Your task to perform on an android device: turn pop-ups off in chrome Image 0: 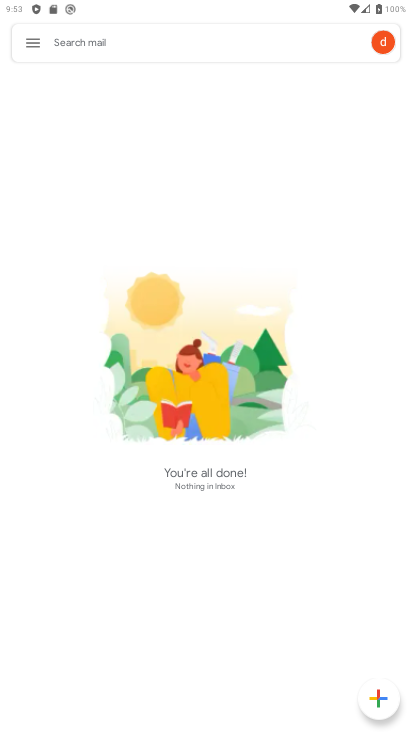
Step 0: press back button
Your task to perform on an android device: turn pop-ups off in chrome Image 1: 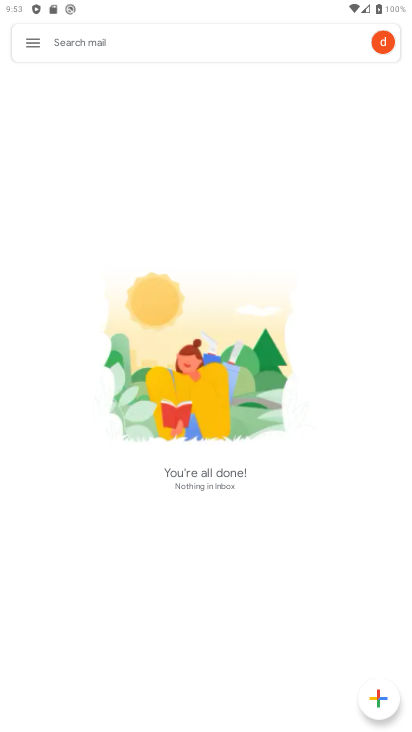
Step 1: press back button
Your task to perform on an android device: turn pop-ups off in chrome Image 2: 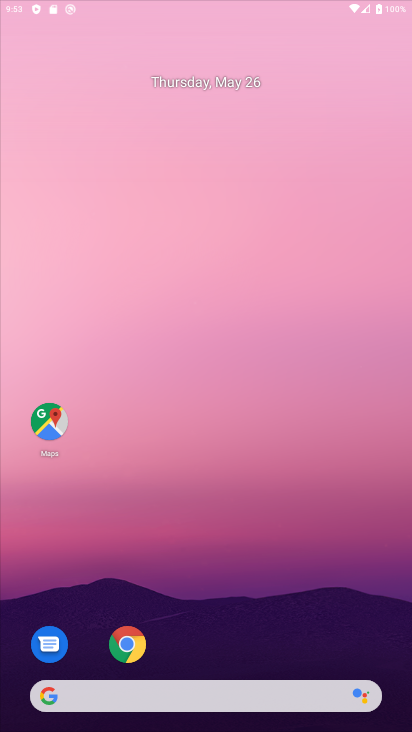
Step 2: press back button
Your task to perform on an android device: turn pop-ups off in chrome Image 3: 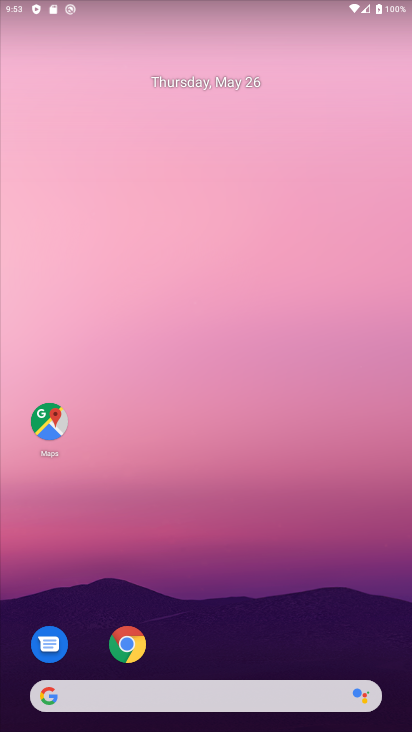
Step 3: press home button
Your task to perform on an android device: turn pop-ups off in chrome Image 4: 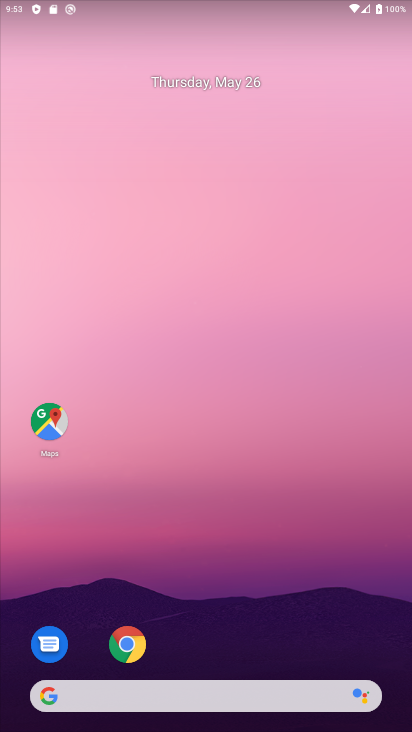
Step 4: click (89, 115)
Your task to perform on an android device: turn pop-ups off in chrome Image 5: 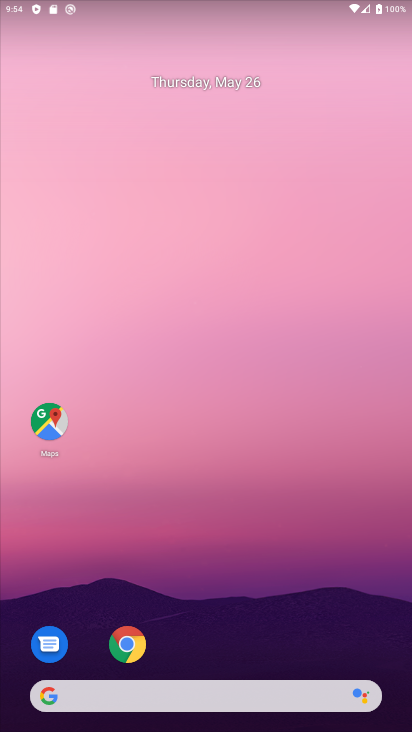
Step 5: drag from (86, 72) to (252, 10)
Your task to perform on an android device: turn pop-ups off in chrome Image 6: 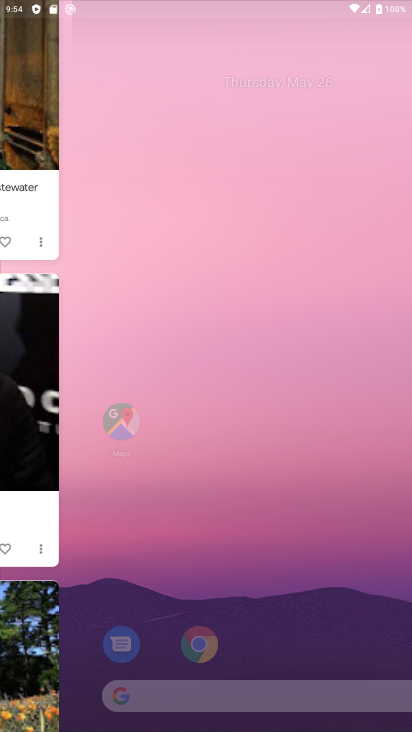
Step 6: drag from (285, 461) to (263, 173)
Your task to perform on an android device: turn pop-ups off in chrome Image 7: 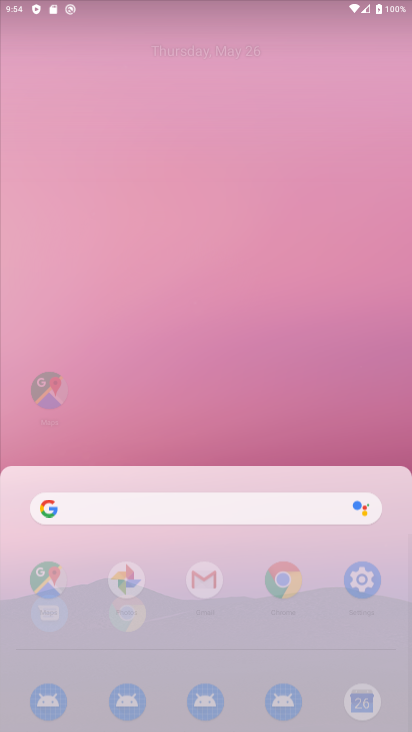
Step 7: drag from (226, 219) to (264, 128)
Your task to perform on an android device: turn pop-ups off in chrome Image 8: 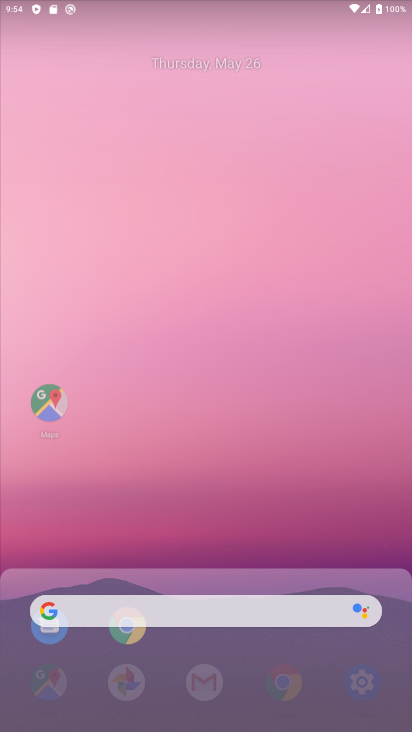
Step 8: drag from (236, 126) to (159, 145)
Your task to perform on an android device: turn pop-ups off in chrome Image 9: 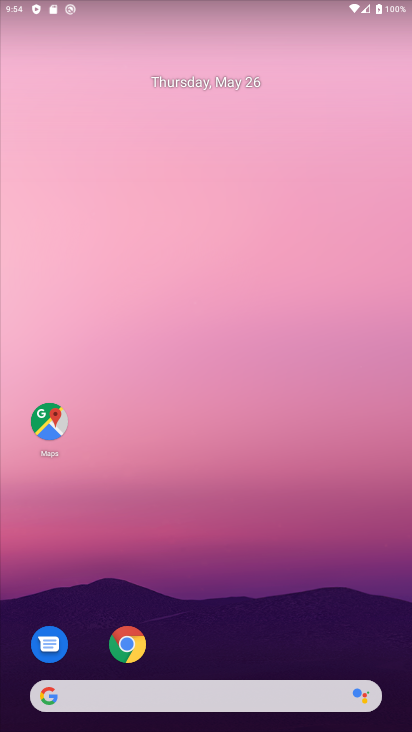
Step 9: drag from (240, 239) to (145, 118)
Your task to perform on an android device: turn pop-ups off in chrome Image 10: 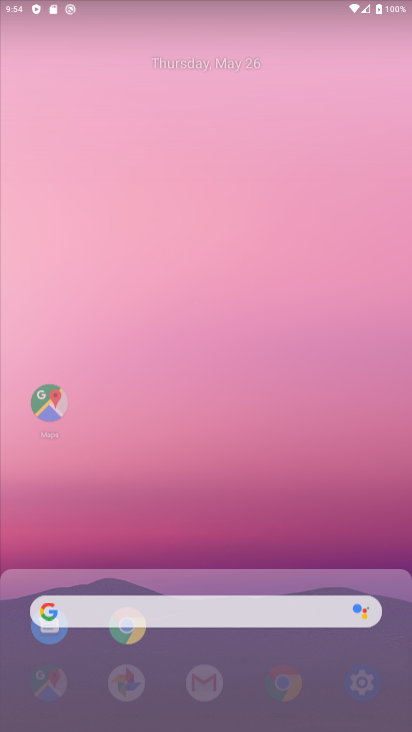
Step 10: drag from (112, 227) to (296, 234)
Your task to perform on an android device: turn pop-ups off in chrome Image 11: 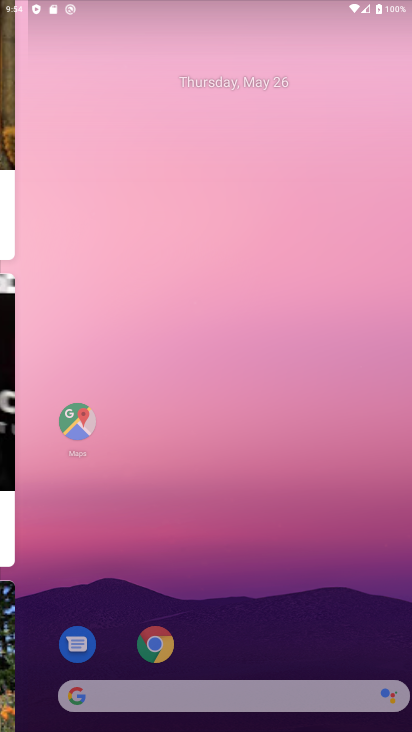
Step 11: drag from (171, 494) to (107, 0)
Your task to perform on an android device: turn pop-ups off in chrome Image 12: 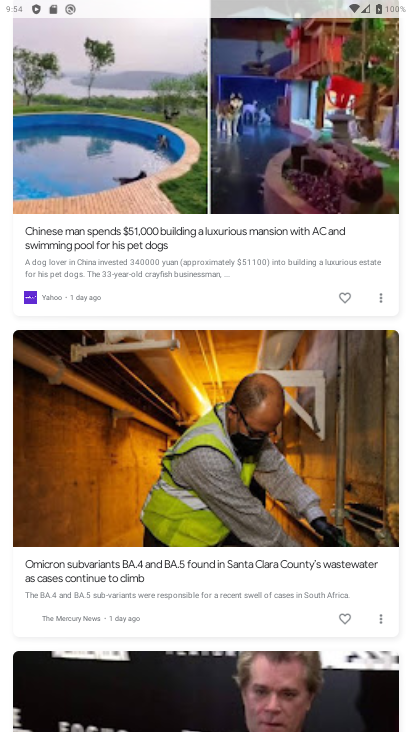
Step 12: drag from (213, 394) to (128, 52)
Your task to perform on an android device: turn pop-ups off in chrome Image 13: 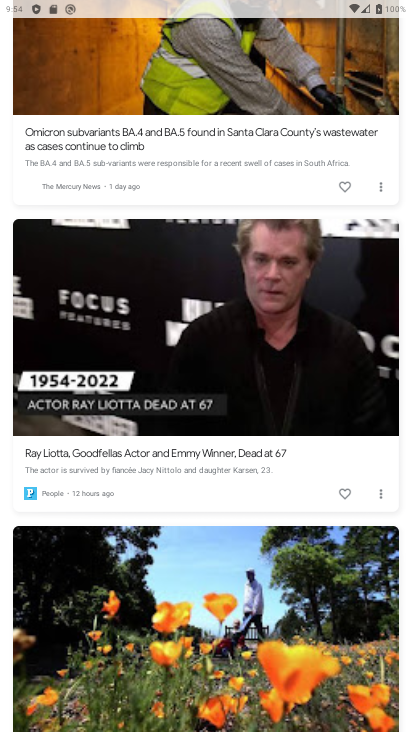
Step 13: click (220, 93)
Your task to perform on an android device: turn pop-ups off in chrome Image 14: 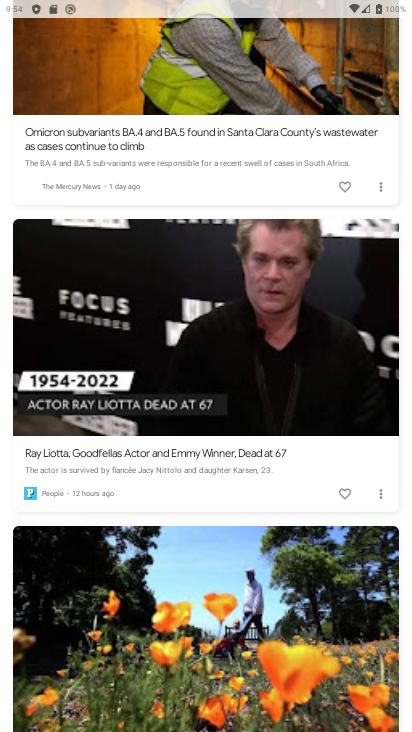
Step 14: press back button
Your task to perform on an android device: turn pop-ups off in chrome Image 15: 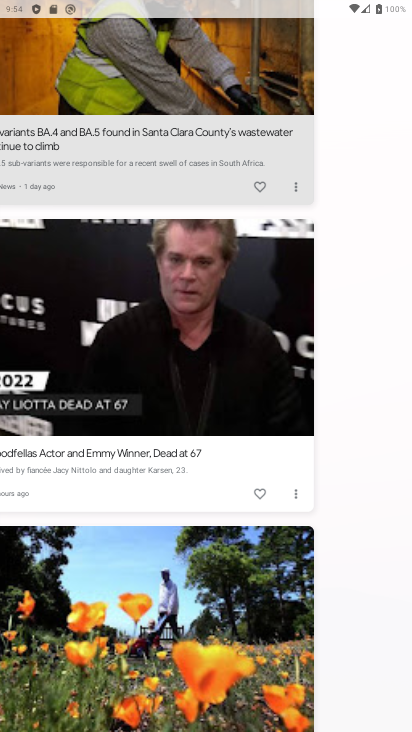
Step 15: press back button
Your task to perform on an android device: turn pop-ups off in chrome Image 16: 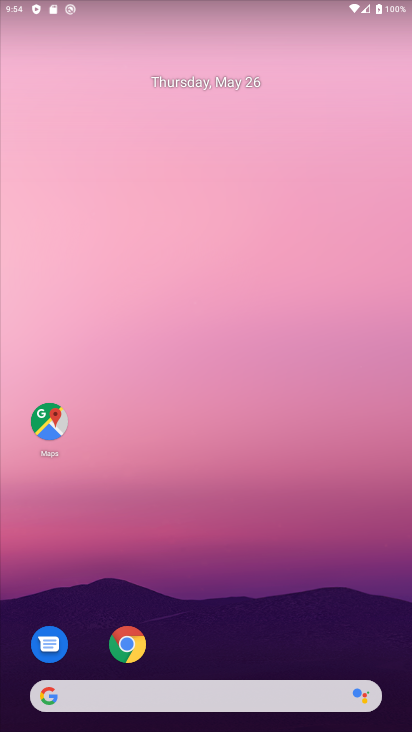
Step 16: drag from (260, 689) to (93, 149)
Your task to perform on an android device: turn pop-ups off in chrome Image 17: 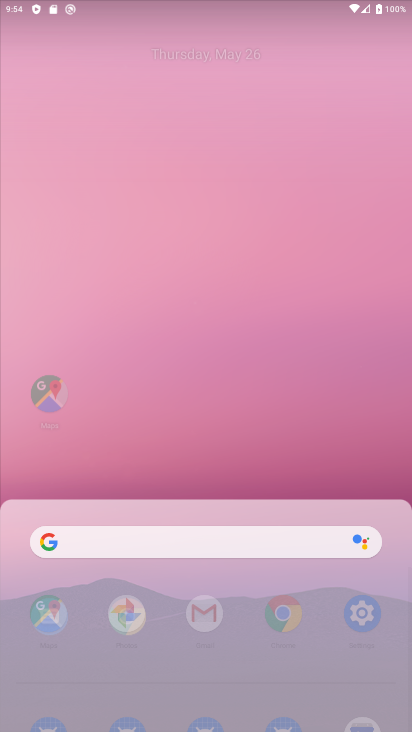
Step 17: drag from (216, 617) to (103, 144)
Your task to perform on an android device: turn pop-ups off in chrome Image 18: 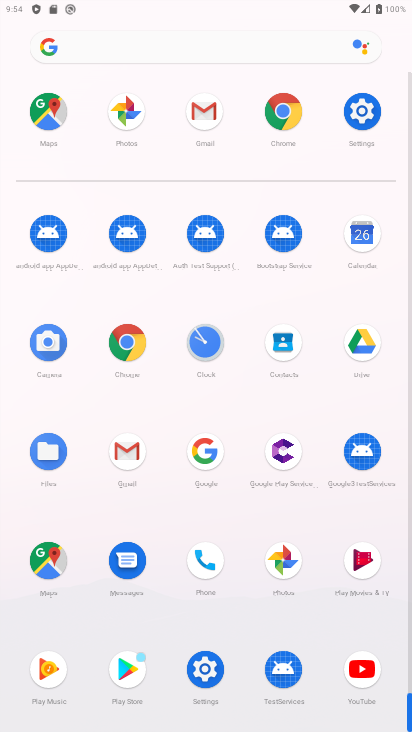
Step 18: click (282, 111)
Your task to perform on an android device: turn pop-ups off in chrome Image 19: 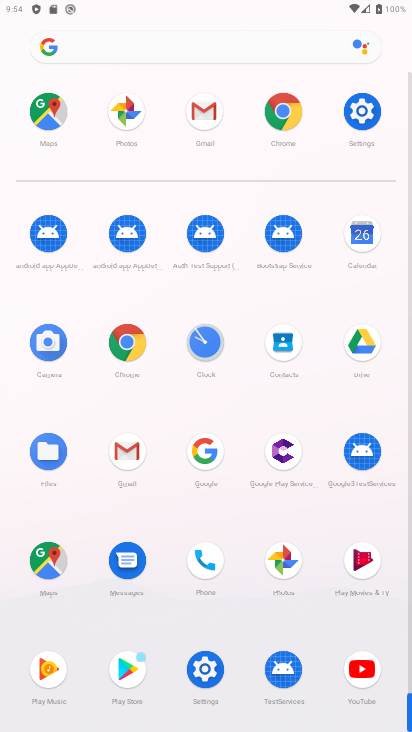
Step 19: click (282, 111)
Your task to perform on an android device: turn pop-ups off in chrome Image 20: 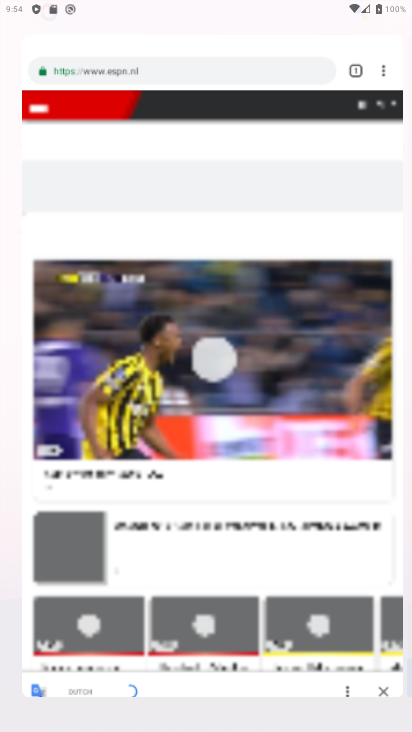
Step 20: click (287, 110)
Your task to perform on an android device: turn pop-ups off in chrome Image 21: 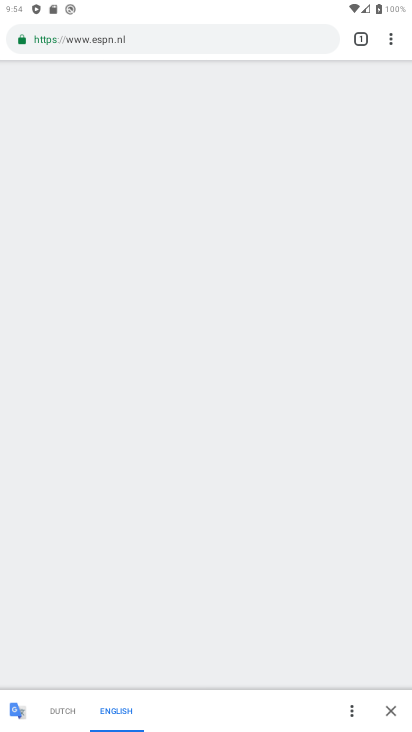
Step 21: drag from (389, 41) to (234, 464)
Your task to perform on an android device: turn pop-ups off in chrome Image 22: 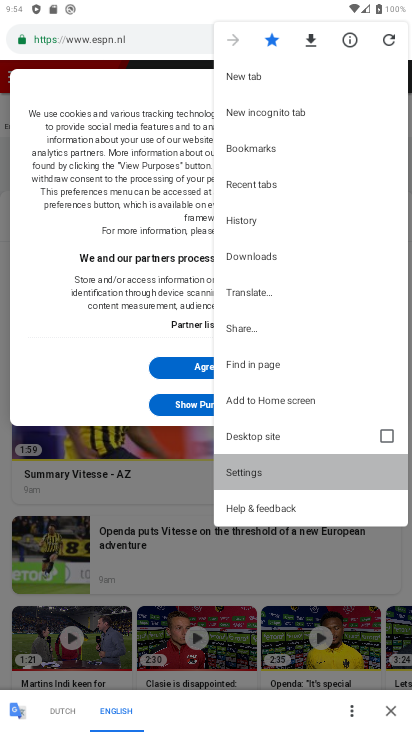
Step 22: click (238, 461)
Your task to perform on an android device: turn pop-ups off in chrome Image 23: 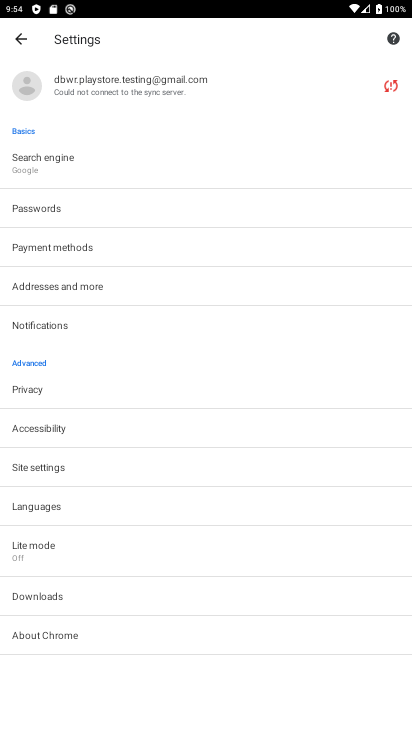
Step 23: click (37, 468)
Your task to perform on an android device: turn pop-ups off in chrome Image 24: 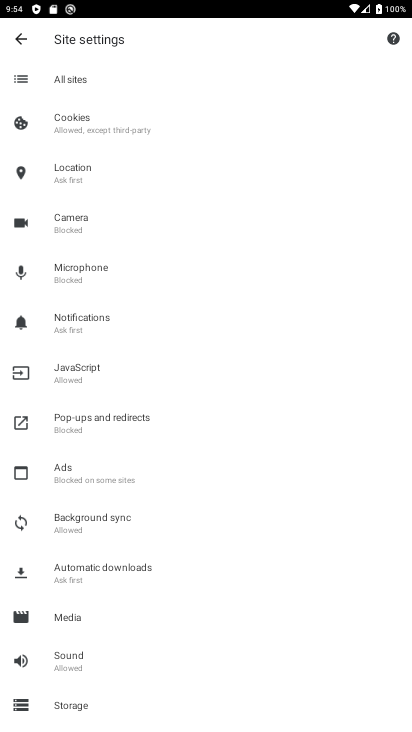
Step 24: click (74, 428)
Your task to perform on an android device: turn pop-ups off in chrome Image 25: 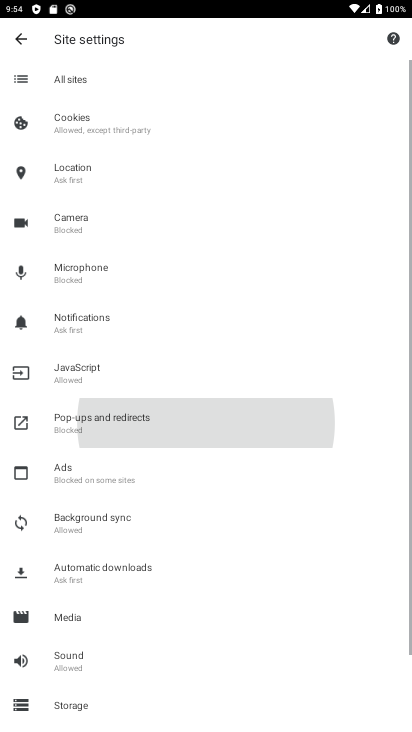
Step 25: click (76, 426)
Your task to perform on an android device: turn pop-ups off in chrome Image 26: 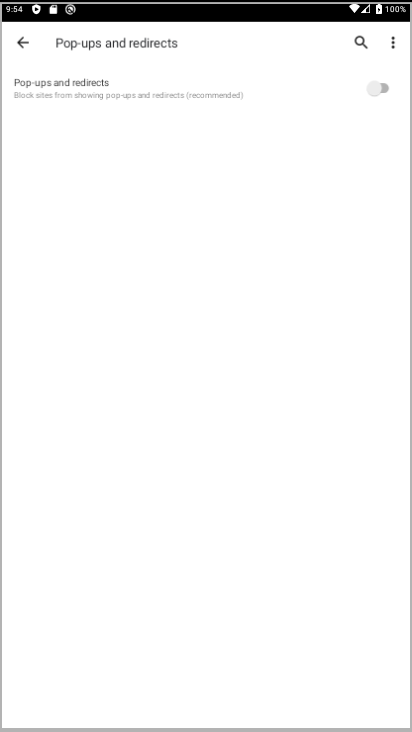
Step 26: click (77, 425)
Your task to perform on an android device: turn pop-ups off in chrome Image 27: 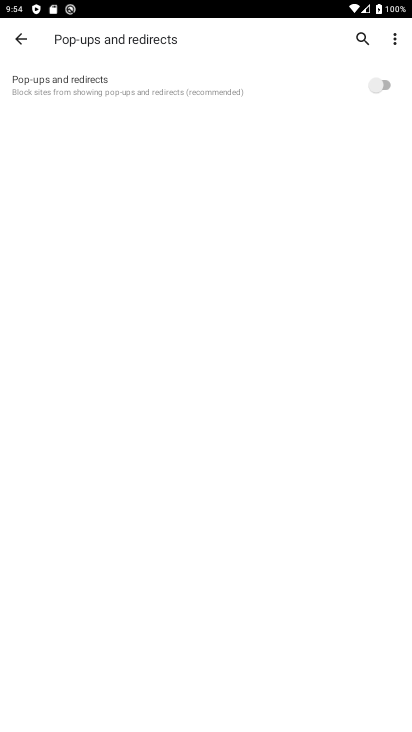
Step 27: task complete